Your task to perform on an android device: Open Google Maps and go to "Timeline" Image 0: 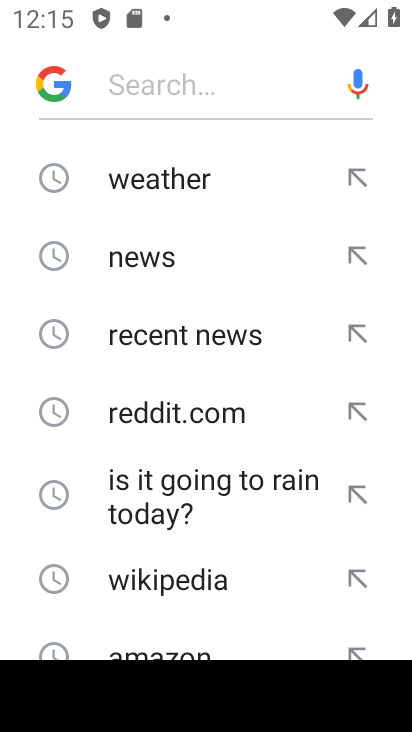
Step 0: press back button
Your task to perform on an android device: Open Google Maps and go to "Timeline" Image 1: 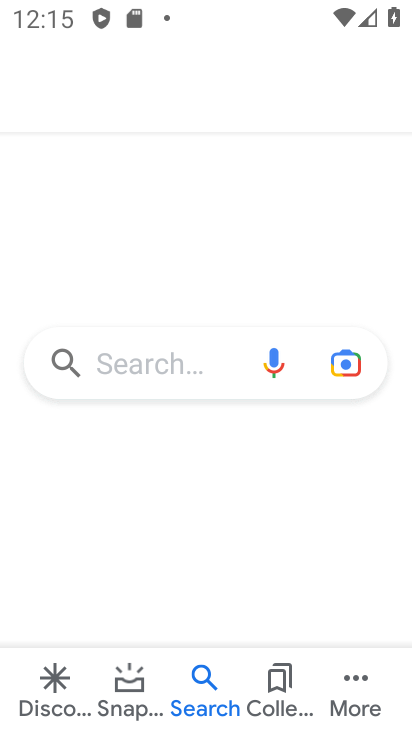
Step 1: press home button
Your task to perform on an android device: Open Google Maps and go to "Timeline" Image 2: 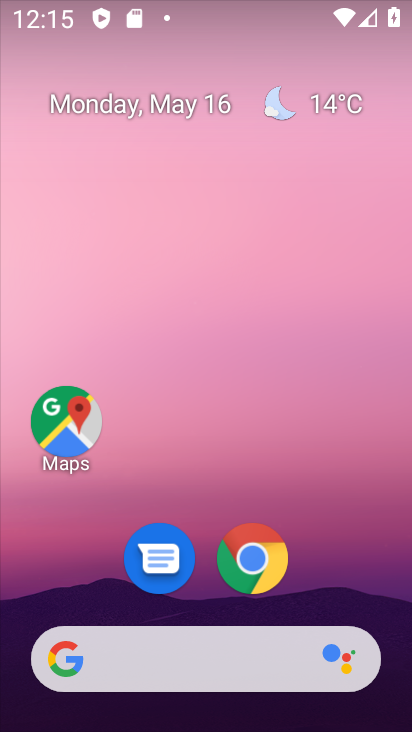
Step 2: drag from (397, 585) to (384, 109)
Your task to perform on an android device: Open Google Maps and go to "Timeline" Image 3: 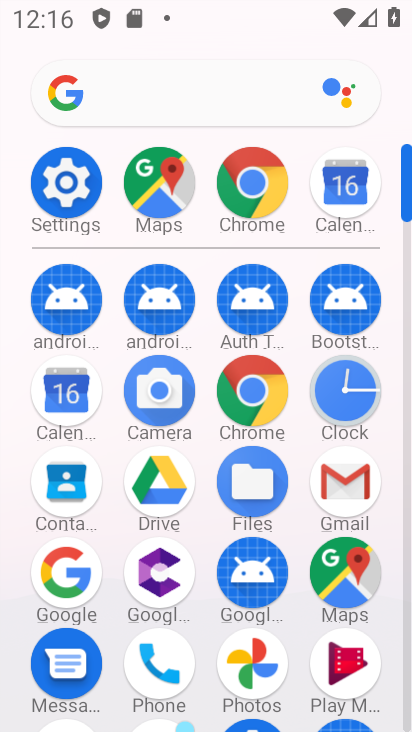
Step 3: click (372, 573)
Your task to perform on an android device: Open Google Maps and go to "Timeline" Image 4: 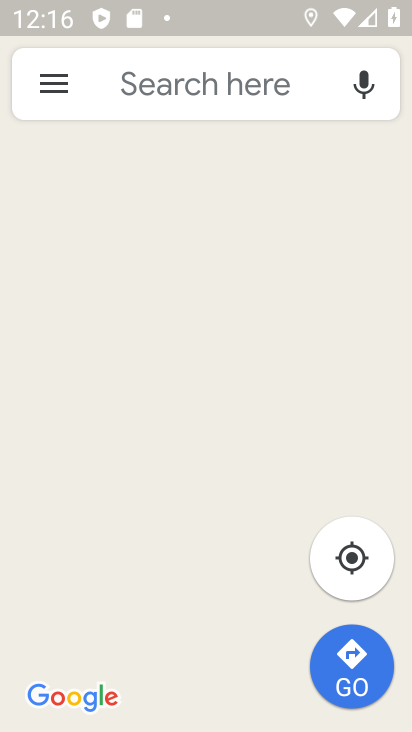
Step 4: click (39, 90)
Your task to perform on an android device: Open Google Maps and go to "Timeline" Image 5: 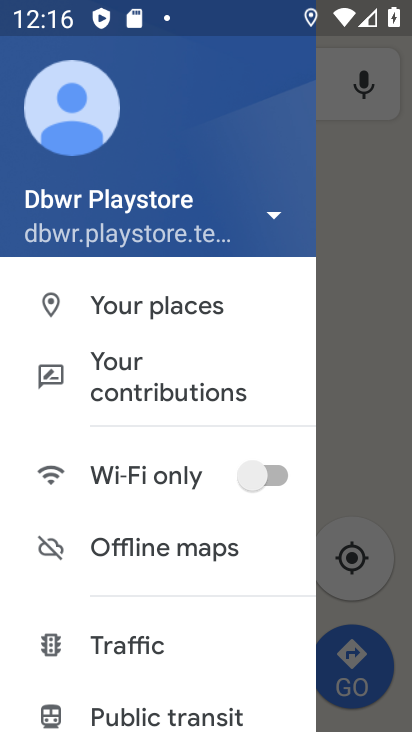
Step 5: drag from (193, 629) to (179, 406)
Your task to perform on an android device: Open Google Maps and go to "Timeline" Image 6: 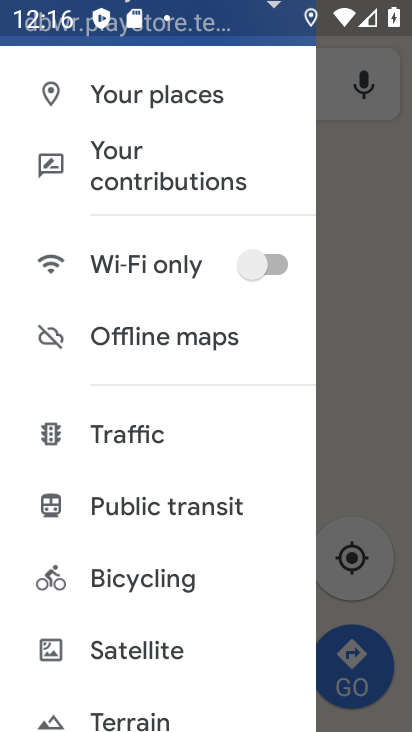
Step 6: drag from (221, 656) to (211, 449)
Your task to perform on an android device: Open Google Maps and go to "Timeline" Image 7: 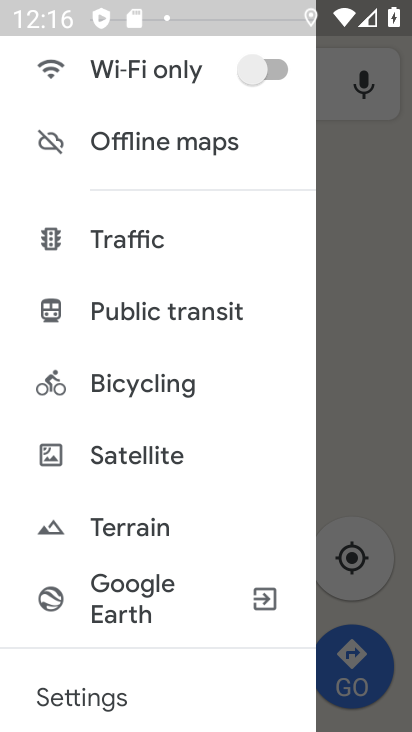
Step 7: drag from (189, 660) to (199, 454)
Your task to perform on an android device: Open Google Maps and go to "Timeline" Image 8: 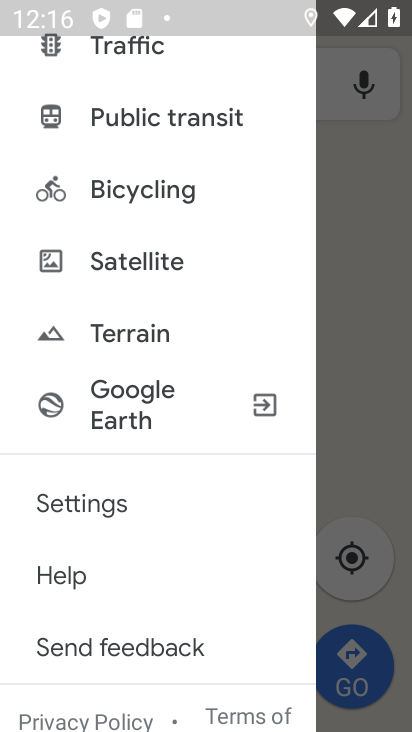
Step 8: drag from (204, 226) to (210, 546)
Your task to perform on an android device: Open Google Maps and go to "Timeline" Image 9: 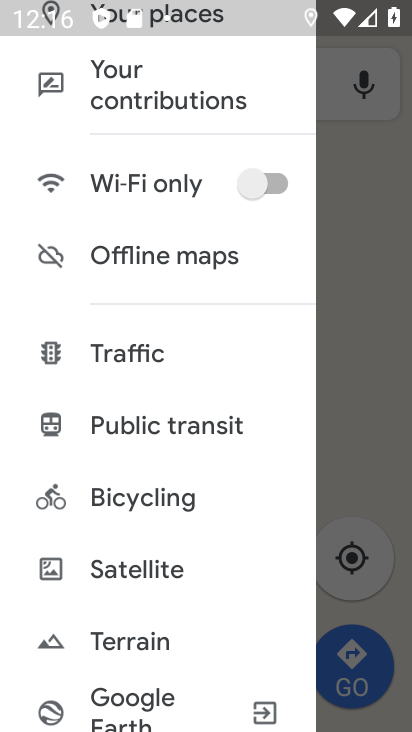
Step 9: drag from (226, 263) to (232, 507)
Your task to perform on an android device: Open Google Maps and go to "Timeline" Image 10: 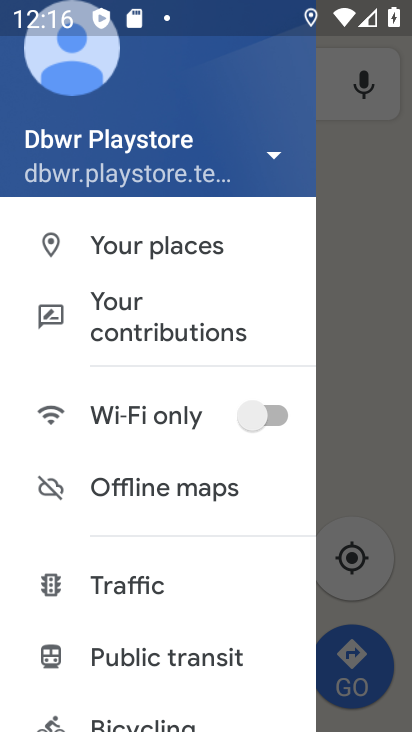
Step 10: click (147, 323)
Your task to perform on an android device: Open Google Maps and go to "Timeline" Image 11: 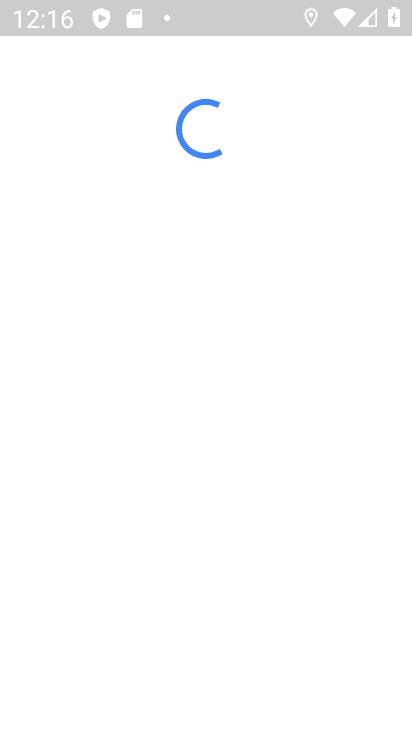
Step 11: task complete